Your task to perform on an android device: open chrome privacy settings Image 0: 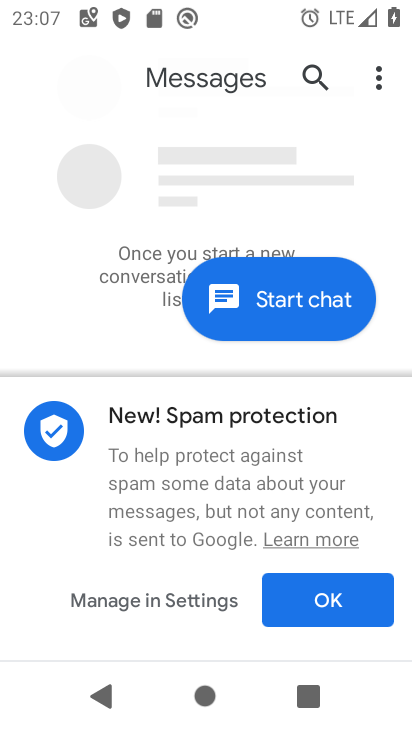
Step 0: press back button
Your task to perform on an android device: open chrome privacy settings Image 1: 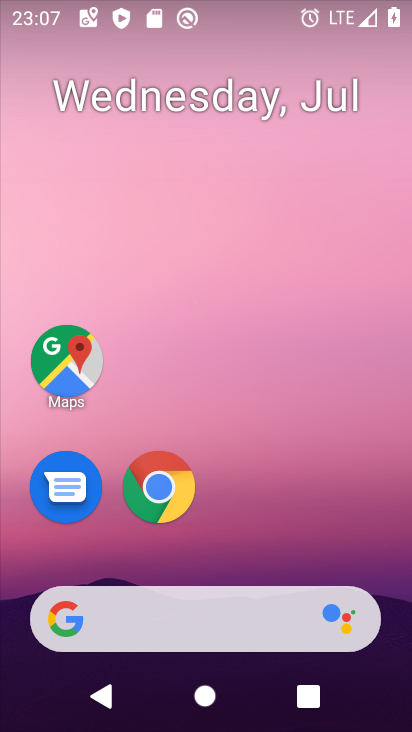
Step 1: click (141, 458)
Your task to perform on an android device: open chrome privacy settings Image 2: 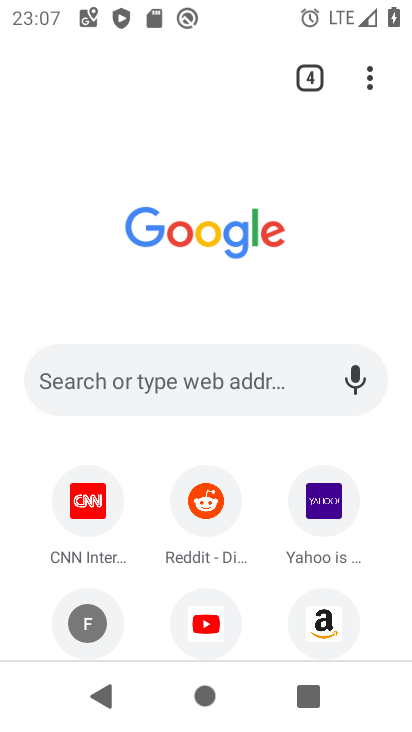
Step 2: click (371, 77)
Your task to perform on an android device: open chrome privacy settings Image 3: 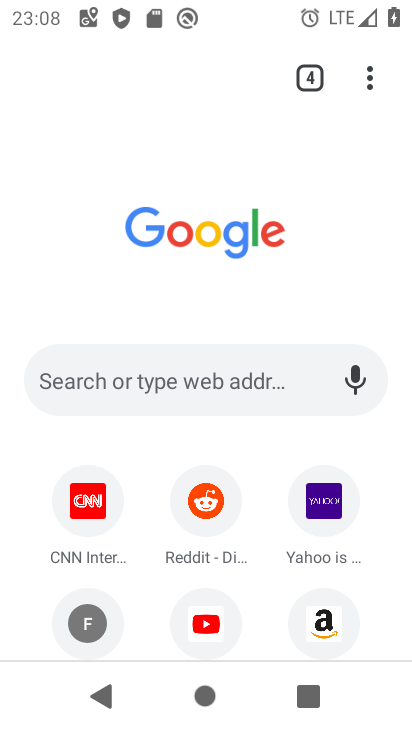
Step 3: click (364, 67)
Your task to perform on an android device: open chrome privacy settings Image 4: 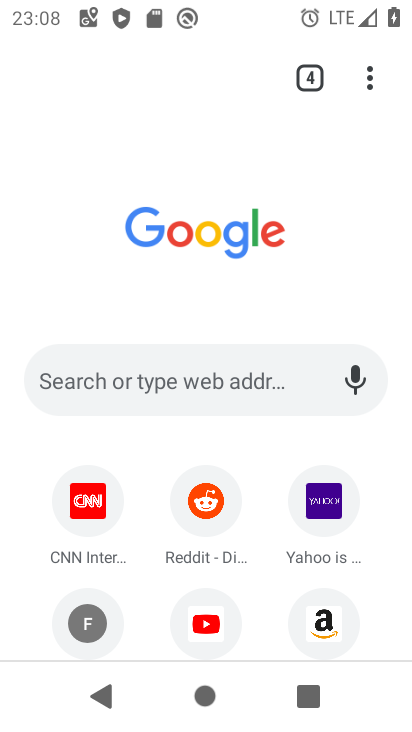
Step 4: drag from (368, 76) to (144, 557)
Your task to perform on an android device: open chrome privacy settings Image 5: 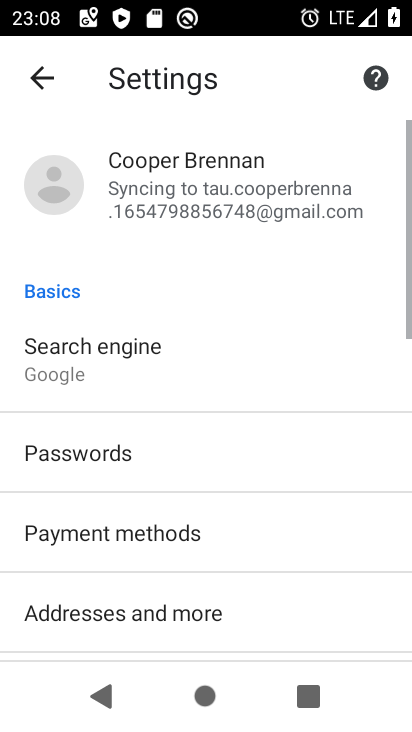
Step 5: drag from (124, 604) to (246, 112)
Your task to perform on an android device: open chrome privacy settings Image 6: 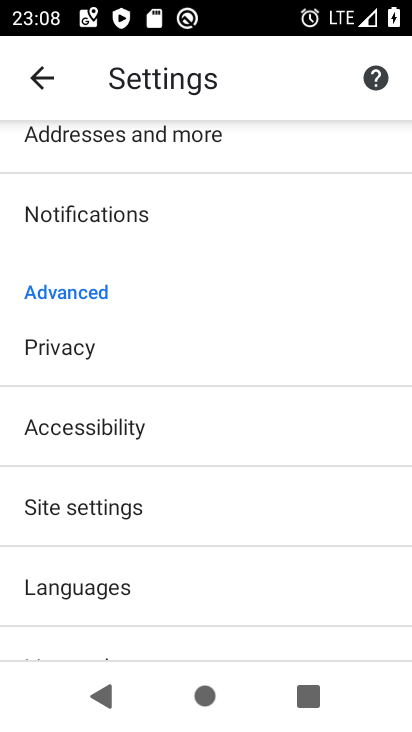
Step 6: click (68, 349)
Your task to perform on an android device: open chrome privacy settings Image 7: 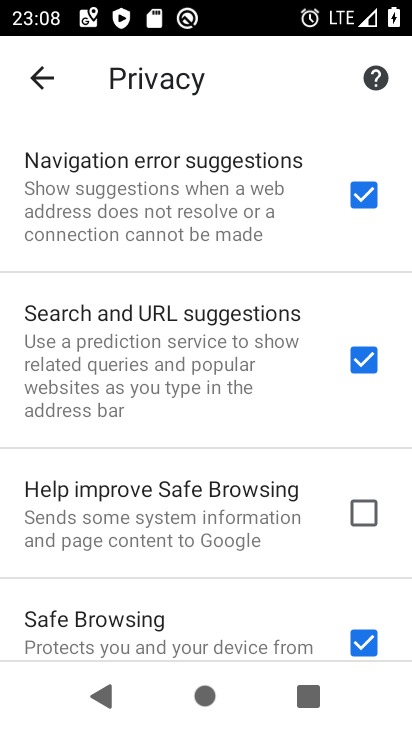
Step 7: task complete